Your task to perform on an android device: change the upload size in google photos Image 0: 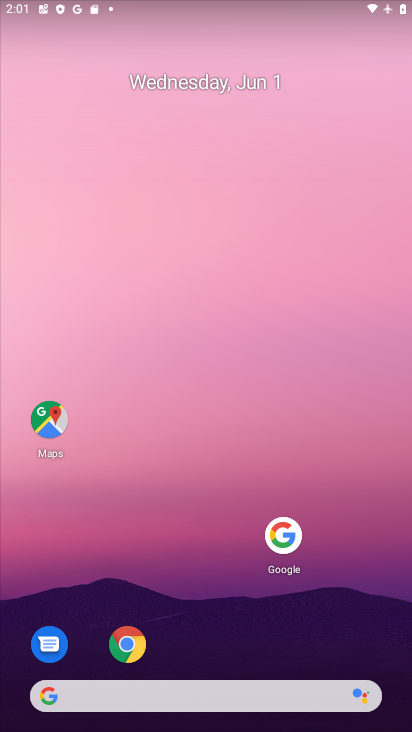
Step 0: press home button
Your task to perform on an android device: change the upload size in google photos Image 1: 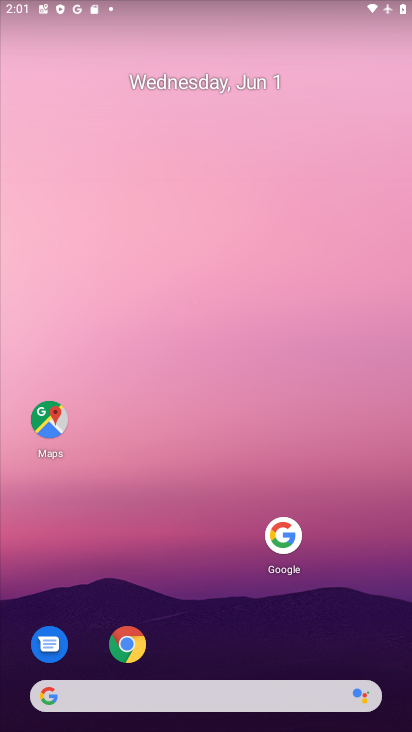
Step 1: drag from (197, 697) to (246, 194)
Your task to perform on an android device: change the upload size in google photos Image 2: 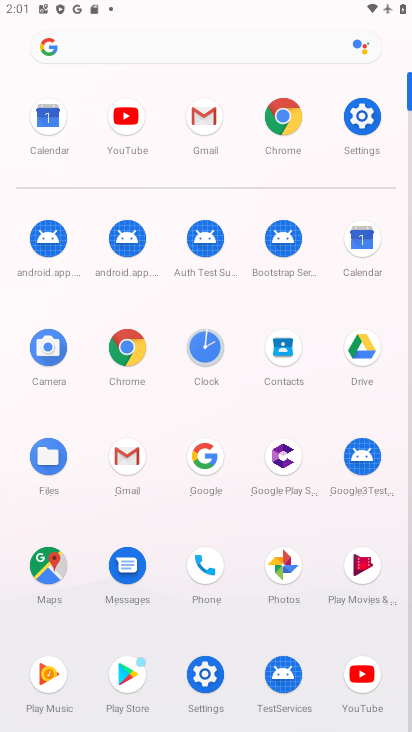
Step 2: click (279, 561)
Your task to perform on an android device: change the upload size in google photos Image 3: 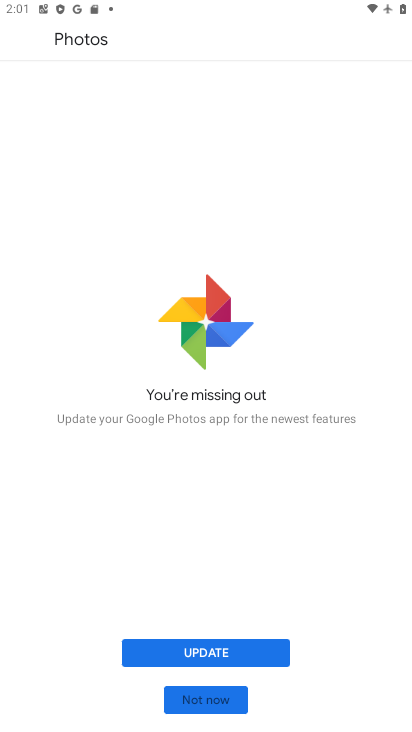
Step 3: click (210, 645)
Your task to perform on an android device: change the upload size in google photos Image 4: 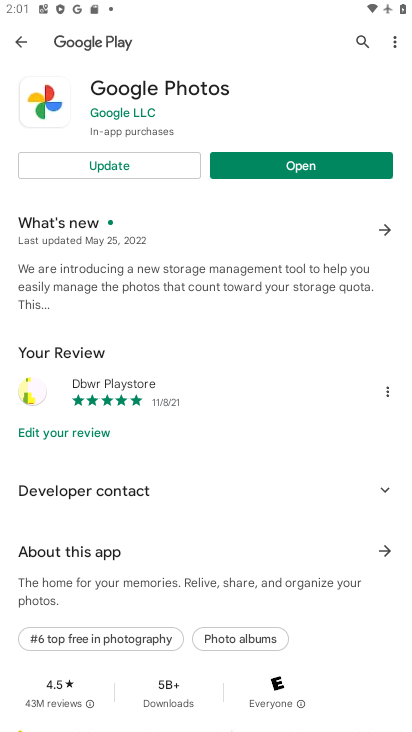
Step 4: click (107, 171)
Your task to perform on an android device: change the upload size in google photos Image 5: 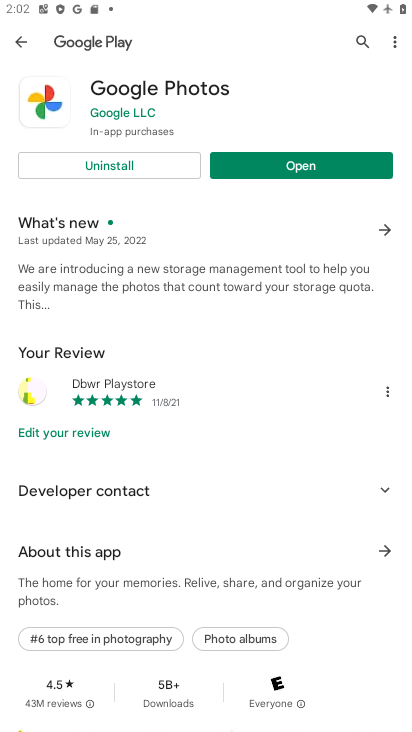
Step 5: click (295, 165)
Your task to perform on an android device: change the upload size in google photos Image 6: 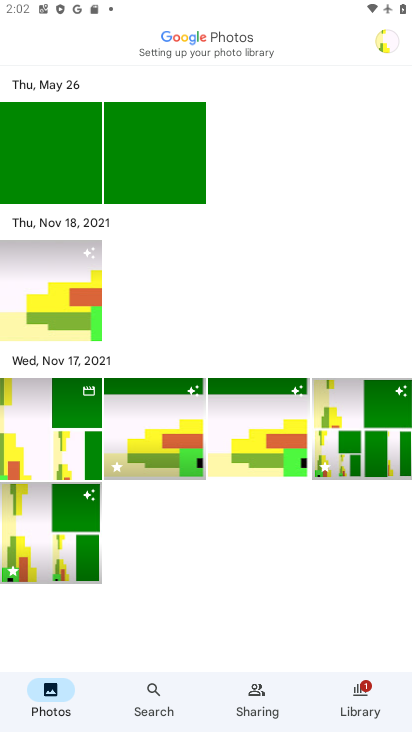
Step 6: click (382, 40)
Your task to perform on an android device: change the upload size in google photos Image 7: 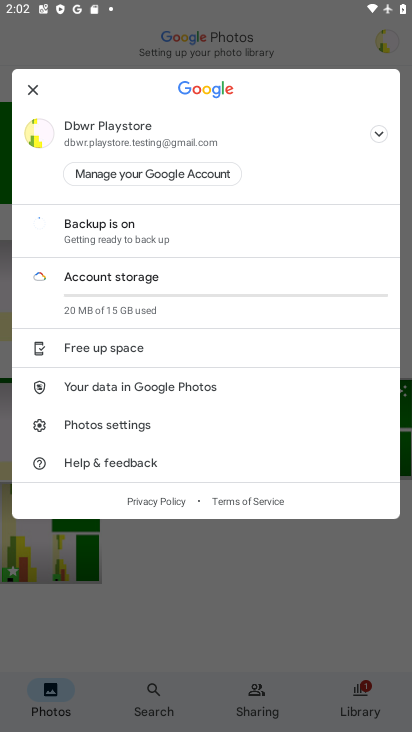
Step 7: click (116, 424)
Your task to perform on an android device: change the upload size in google photos Image 8: 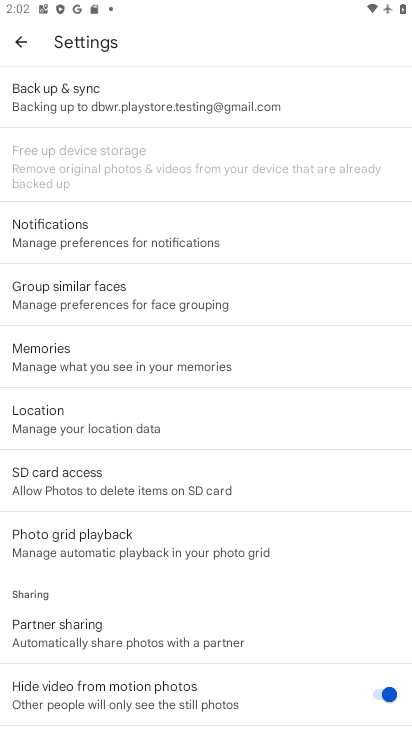
Step 8: click (122, 100)
Your task to perform on an android device: change the upload size in google photos Image 9: 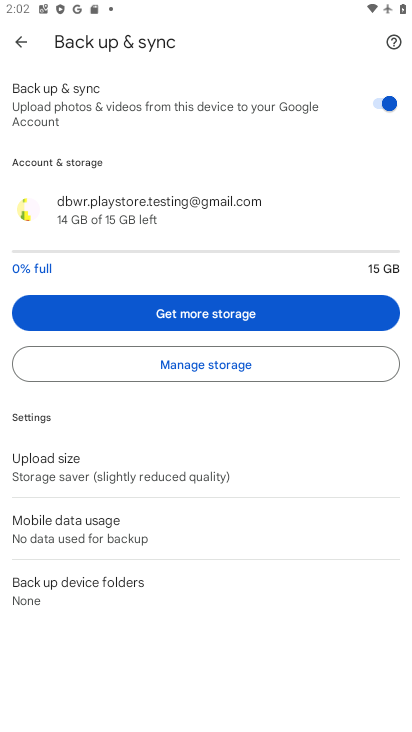
Step 9: click (81, 469)
Your task to perform on an android device: change the upload size in google photos Image 10: 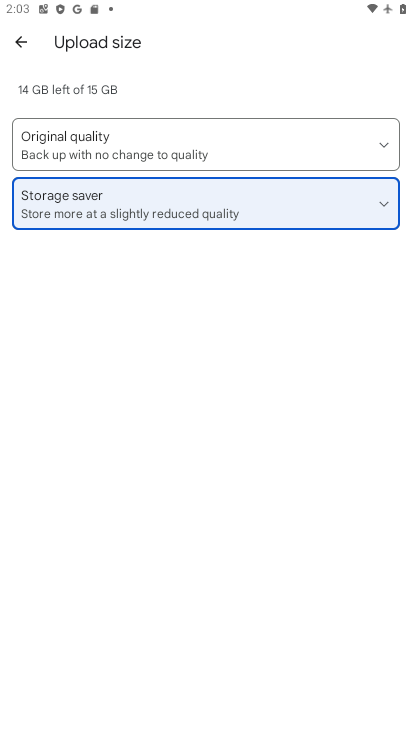
Step 10: click (384, 146)
Your task to perform on an android device: change the upload size in google photos Image 11: 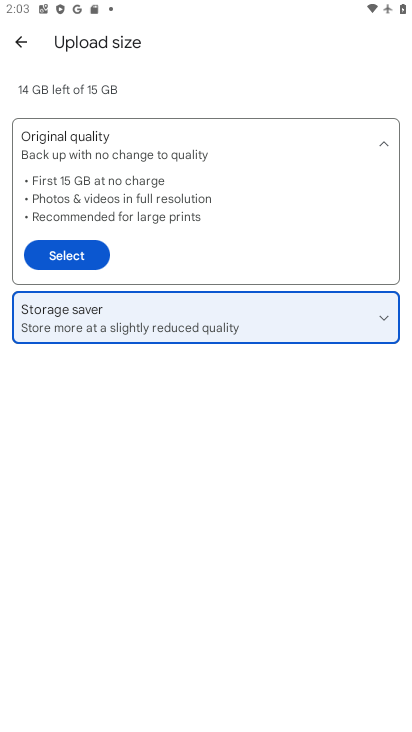
Step 11: click (63, 250)
Your task to perform on an android device: change the upload size in google photos Image 12: 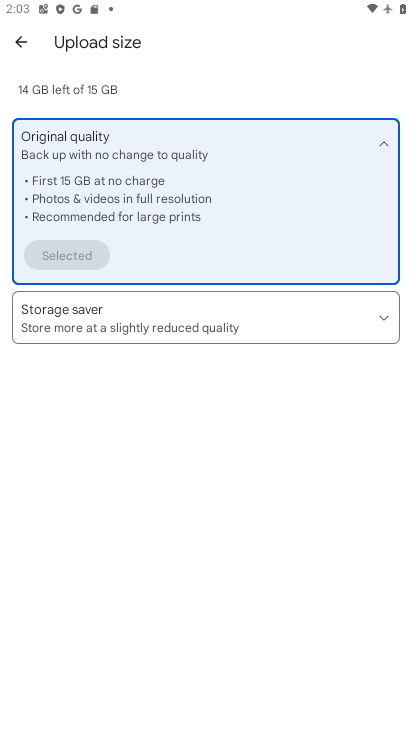
Step 12: task complete